Your task to perform on an android device: toggle notification dots Image 0: 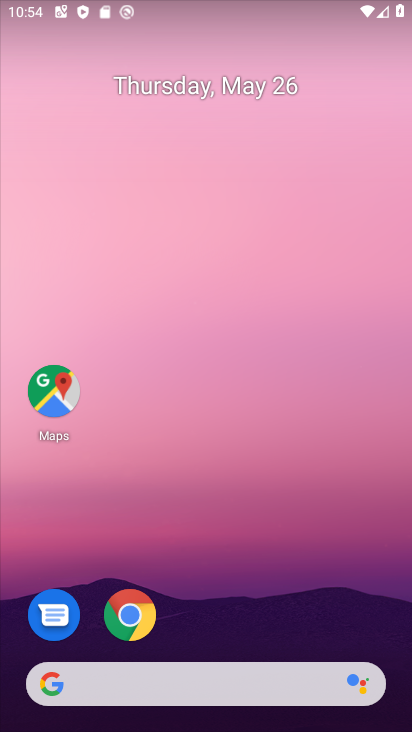
Step 0: drag from (250, 512) to (277, 51)
Your task to perform on an android device: toggle notification dots Image 1: 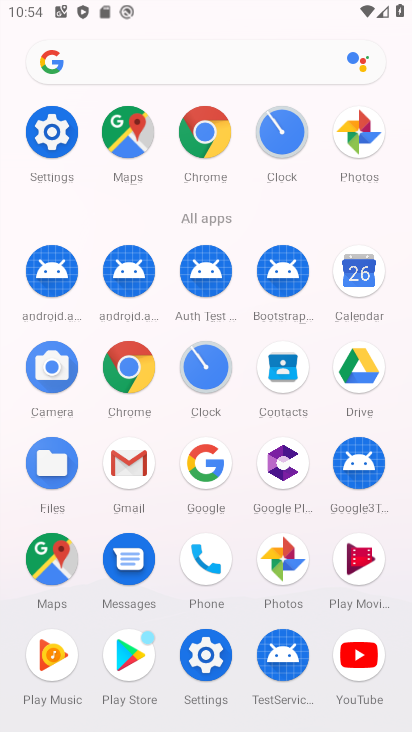
Step 1: click (39, 131)
Your task to perform on an android device: toggle notification dots Image 2: 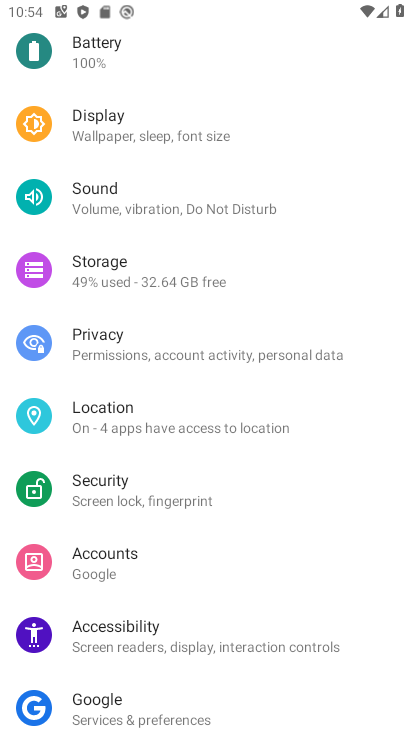
Step 2: drag from (259, 144) to (211, 615)
Your task to perform on an android device: toggle notification dots Image 3: 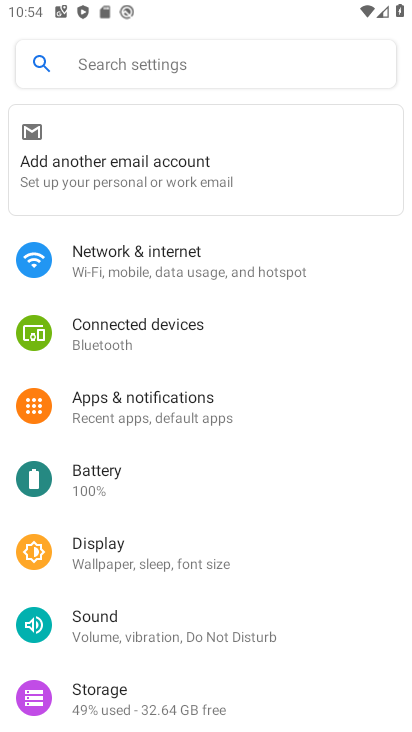
Step 3: click (166, 405)
Your task to perform on an android device: toggle notification dots Image 4: 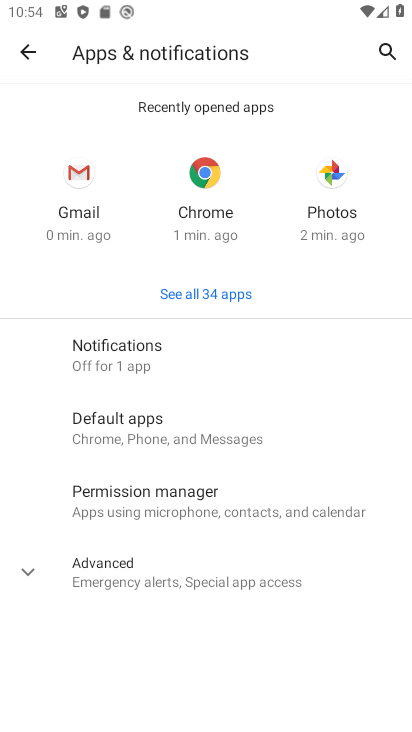
Step 4: click (159, 347)
Your task to perform on an android device: toggle notification dots Image 5: 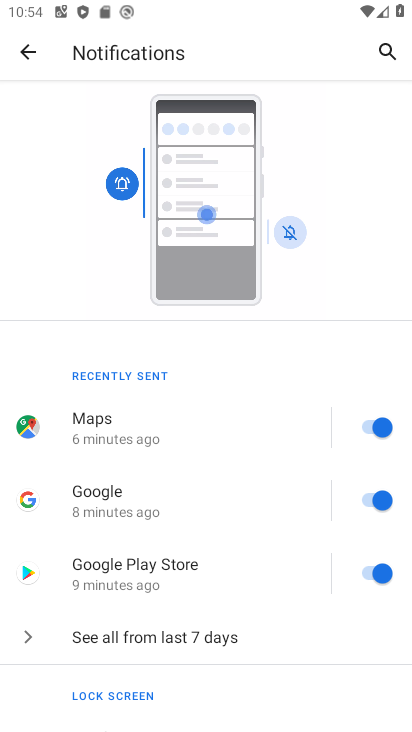
Step 5: drag from (197, 628) to (252, 246)
Your task to perform on an android device: toggle notification dots Image 6: 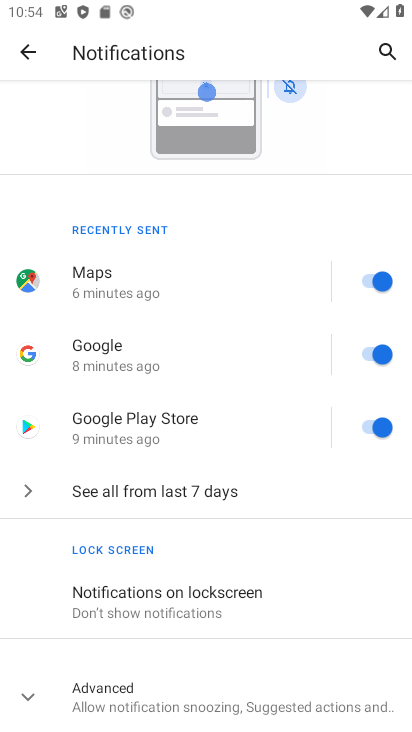
Step 6: click (152, 688)
Your task to perform on an android device: toggle notification dots Image 7: 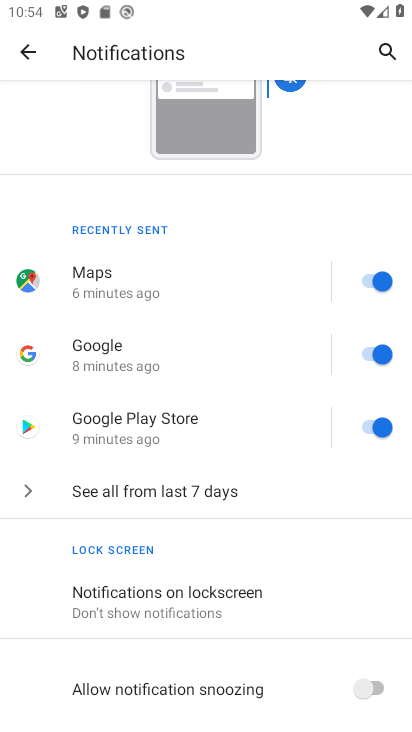
Step 7: drag from (199, 667) to (243, 240)
Your task to perform on an android device: toggle notification dots Image 8: 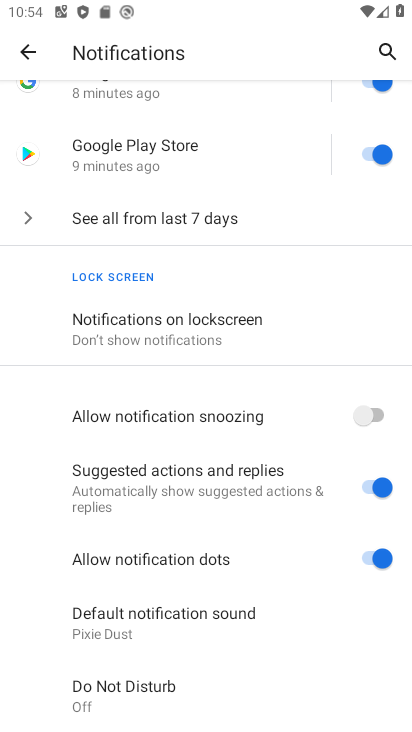
Step 8: click (374, 554)
Your task to perform on an android device: toggle notification dots Image 9: 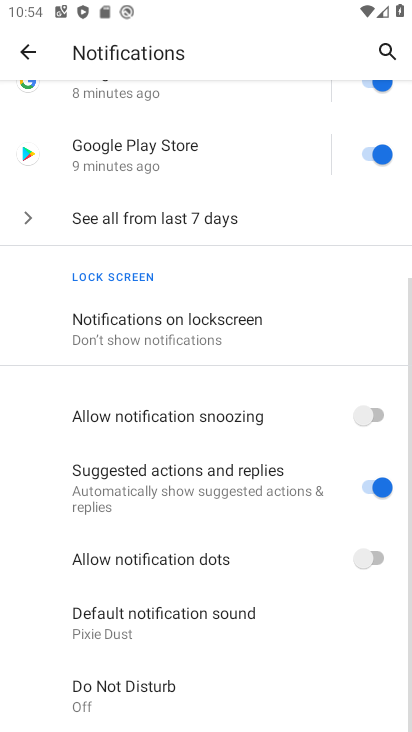
Step 9: task complete